Your task to perform on an android device: toggle priority inbox in the gmail app Image 0: 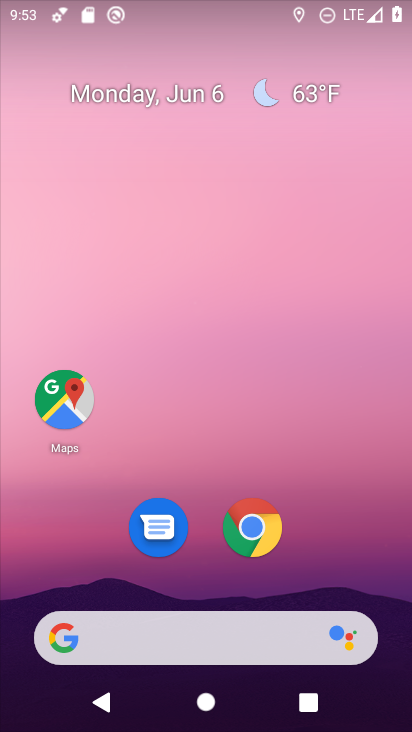
Step 0: drag from (363, 578) to (346, 183)
Your task to perform on an android device: toggle priority inbox in the gmail app Image 1: 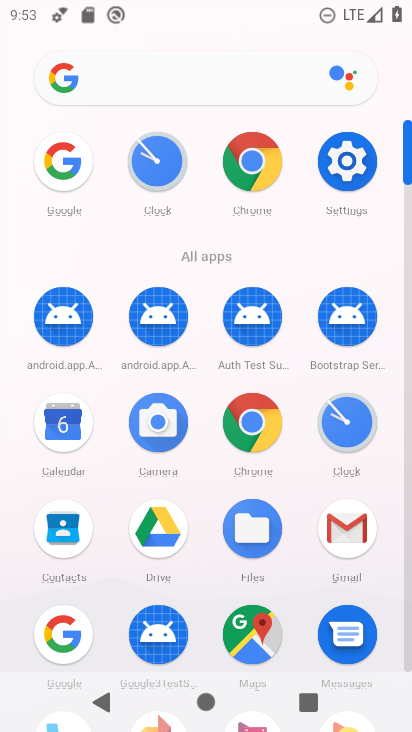
Step 1: click (350, 532)
Your task to perform on an android device: toggle priority inbox in the gmail app Image 2: 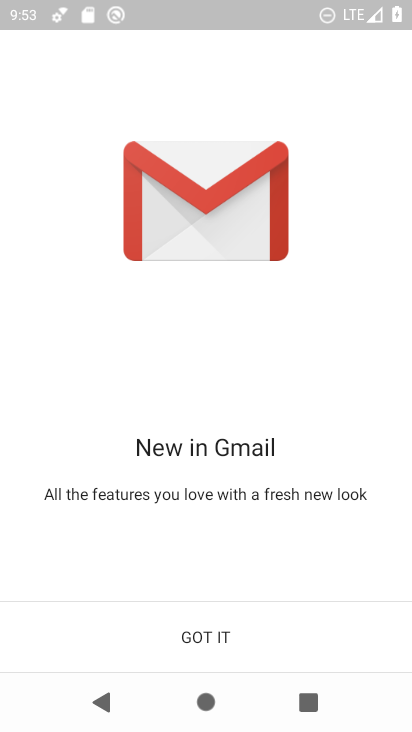
Step 2: click (236, 637)
Your task to perform on an android device: toggle priority inbox in the gmail app Image 3: 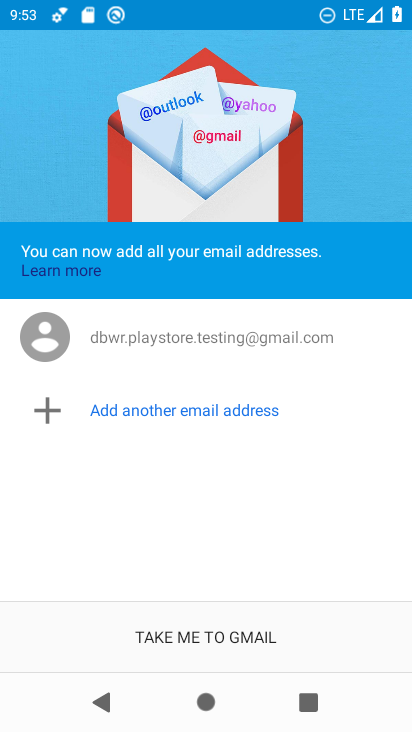
Step 3: click (236, 637)
Your task to perform on an android device: toggle priority inbox in the gmail app Image 4: 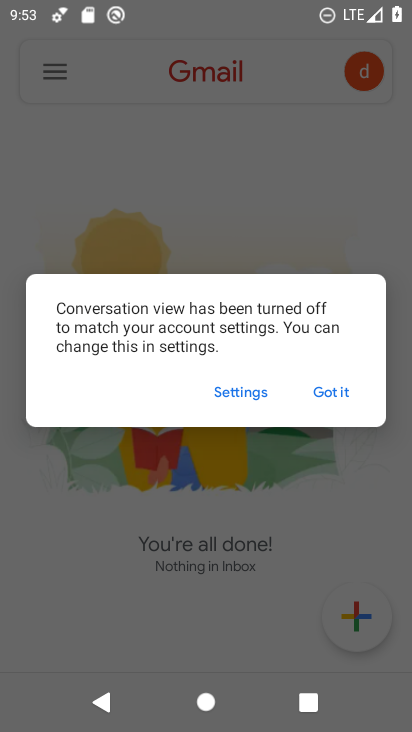
Step 4: click (332, 392)
Your task to perform on an android device: toggle priority inbox in the gmail app Image 5: 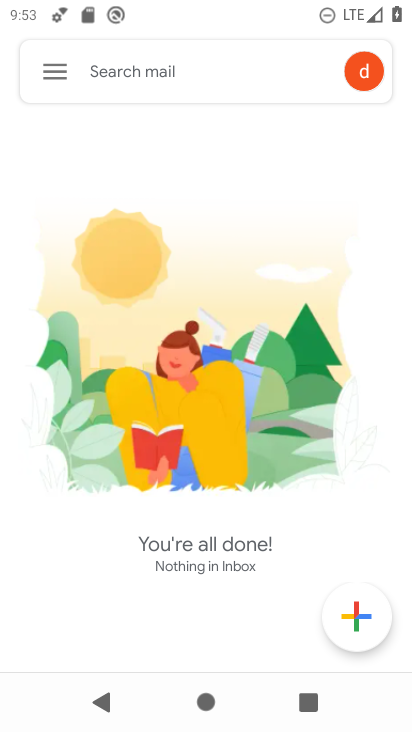
Step 5: click (64, 75)
Your task to perform on an android device: toggle priority inbox in the gmail app Image 6: 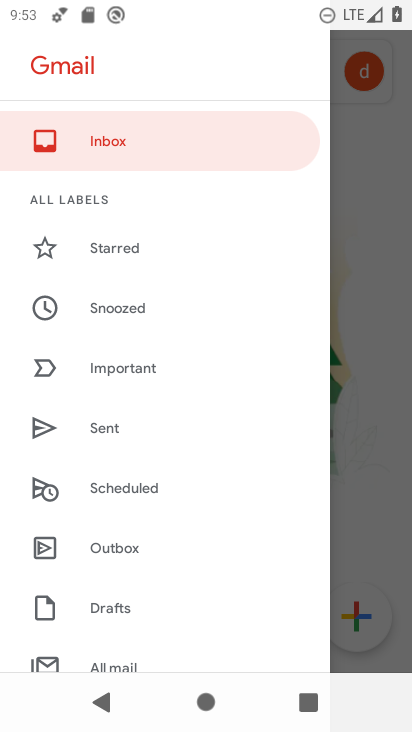
Step 6: drag from (266, 501) to (268, 353)
Your task to perform on an android device: toggle priority inbox in the gmail app Image 7: 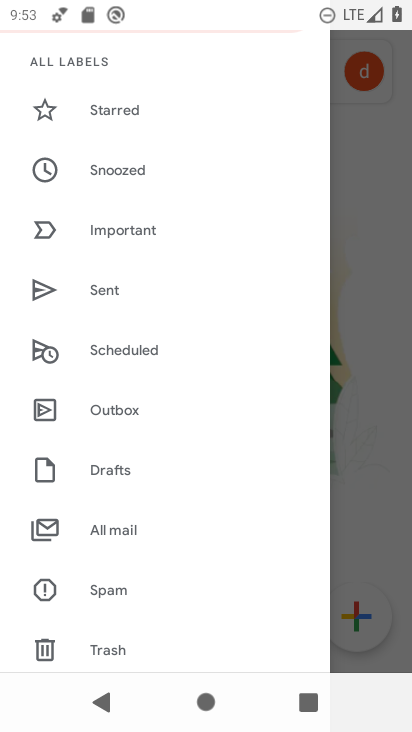
Step 7: drag from (263, 491) to (280, 346)
Your task to perform on an android device: toggle priority inbox in the gmail app Image 8: 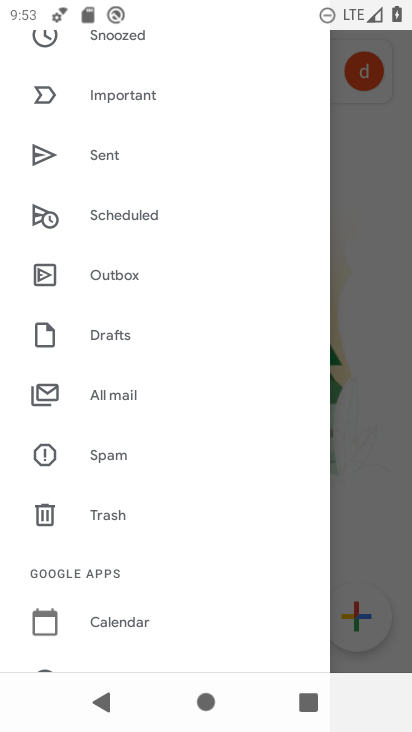
Step 8: drag from (268, 543) to (277, 366)
Your task to perform on an android device: toggle priority inbox in the gmail app Image 9: 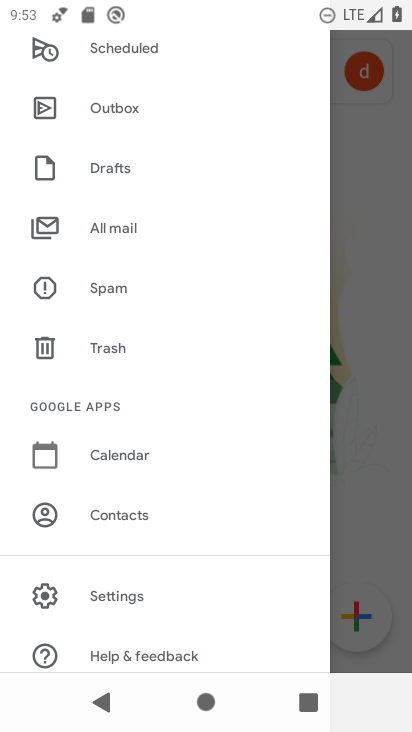
Step 9: drag from (252, 585) to (259, 404)
Your task to perform on an android device: toggle priority inbox in the gmail app Image 10: 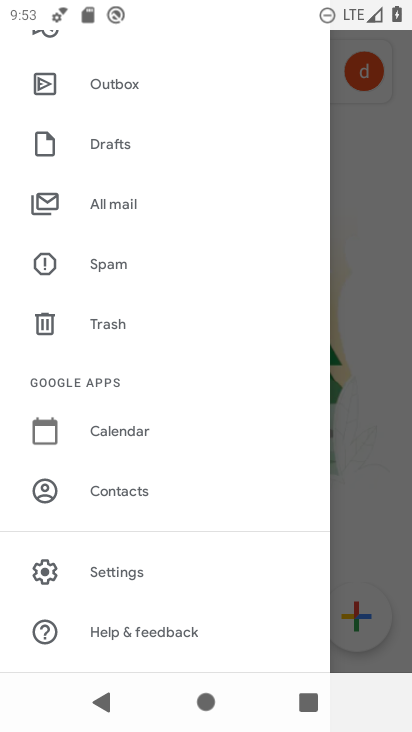
Step 10: click (133, 586)
Your task to perform on an android device: toggle priority inbox in the gmail app Image 11: 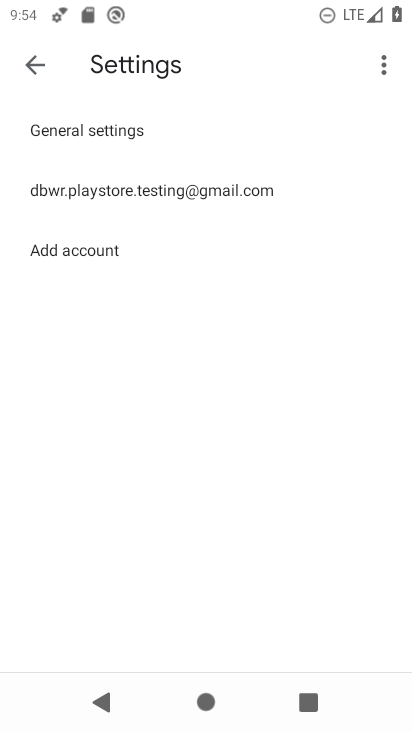
Step 11: click (201, 193)
Your task to perform on an android device: toggle priority inbox in the gmail app Image 12: 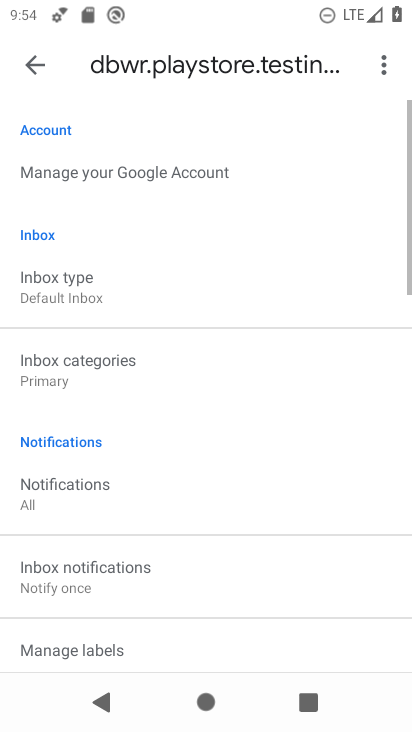
Step 12: drag from (274, 448) to (274, 327)
Your task to perform on an android device: toggle priority inbox in the gmail app Image 13: 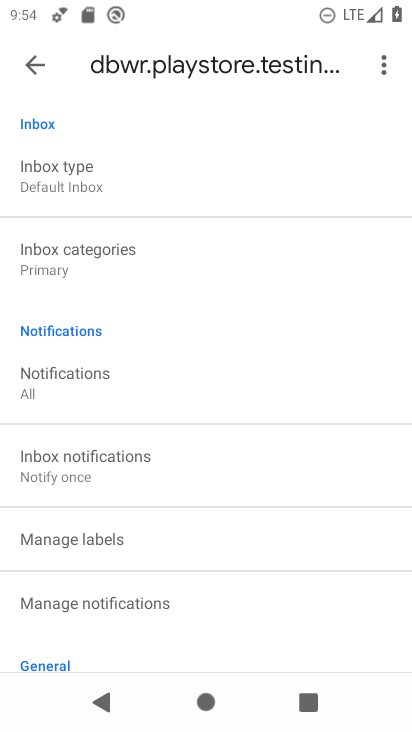
Step 13: drag from (275, 495) to (288, 375)
Your task to perform on an android device: toggle priority inbox in the gmail app Image 14: 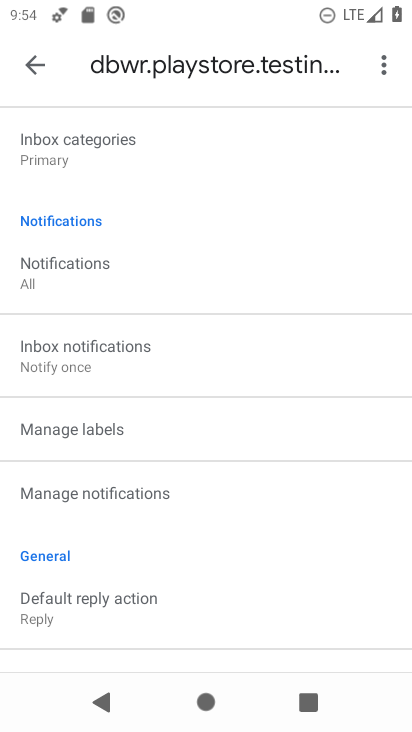
Step 14: drag from (302, 267) to (306, 422)
Your task to perform on an android device: toggle priority inbox in the gmail app Image 15: 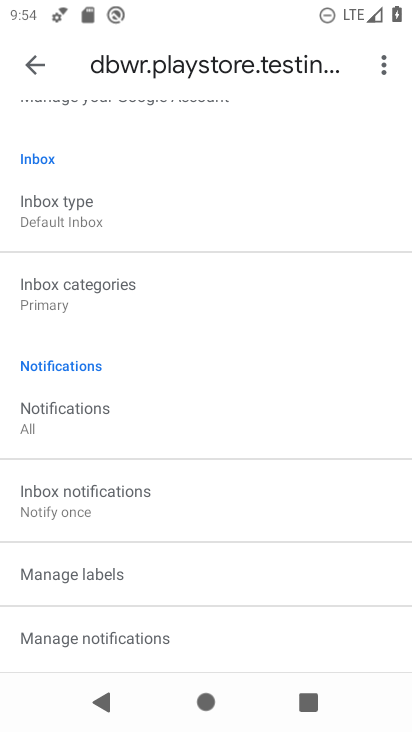
Step 15: drag from (302, 207) to (311, 374)
Your task to perform on an android device: toggle priority inbox in the gmail app Image 16: 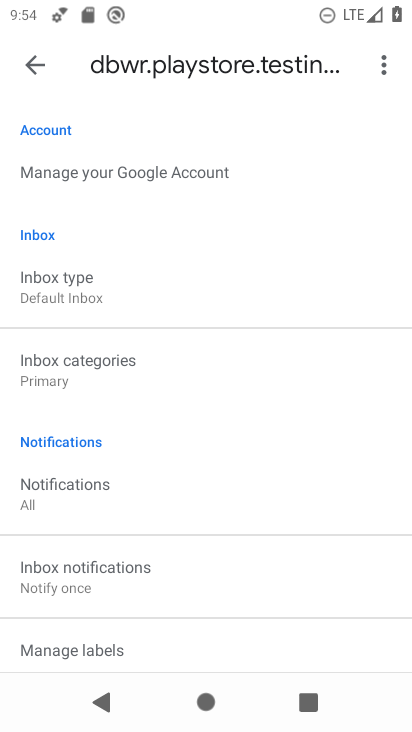
Step 16: click (113, 297)
Your task to perform on an android device: toggle priority inbox in the gmail app Image 17: 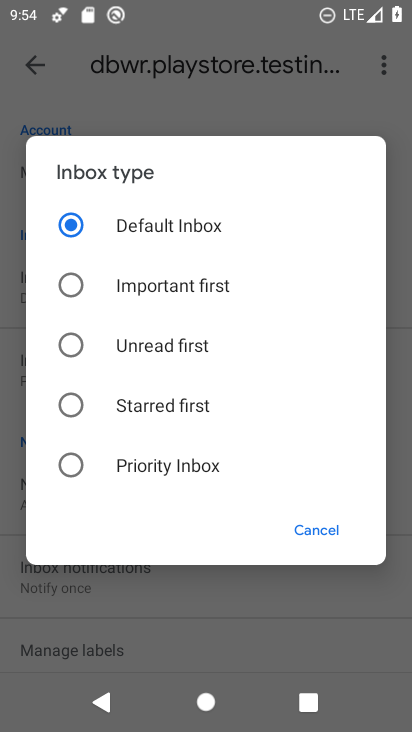
Step 17: click (203, 471)
Your task to perform on an android device: toggle priority inbox in the gmail app Image 18: 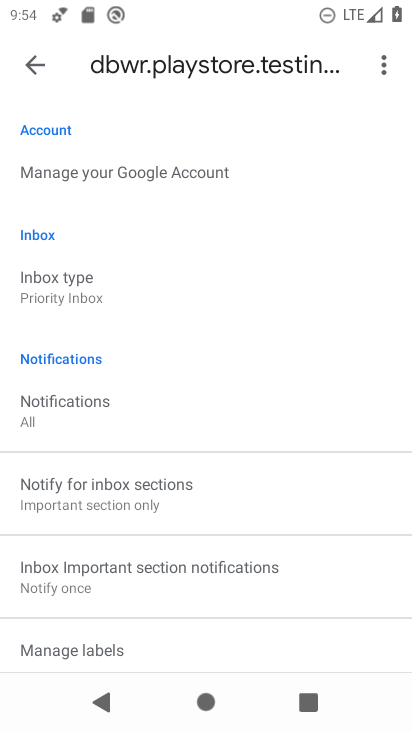
Step 18: task complete